Your task to perform on an android device: turn pop-ups off in chrome Image 0: 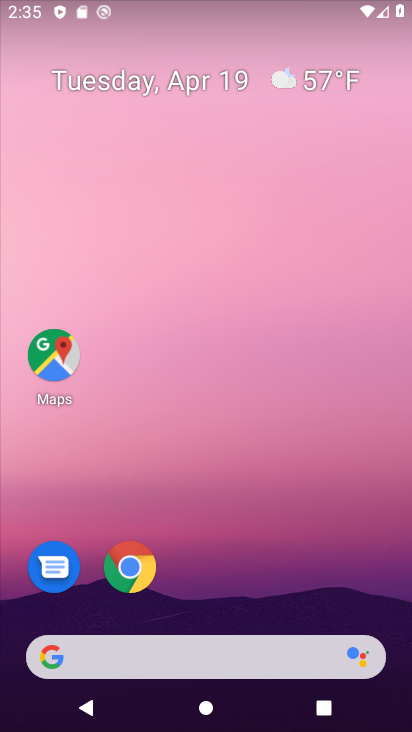
Step 0: drag from (396, 597) to (393, 58)
Your task to perform on an android device: turn pop-ups off in chrome Image 1: 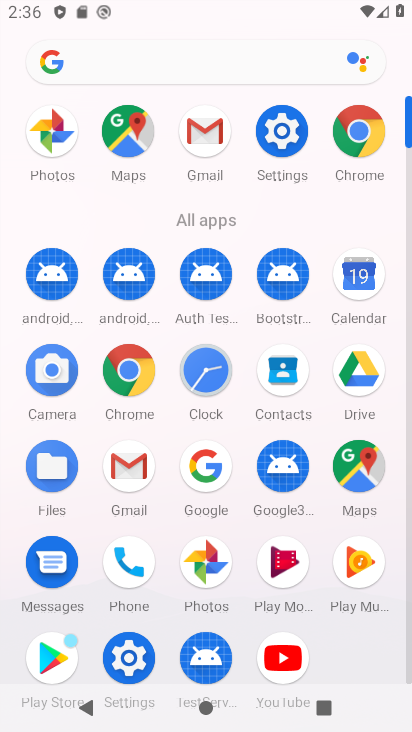
Step 1: click (135, 379)
Your task to perform on an android device: turn pop-ups off in chrome Image 2: 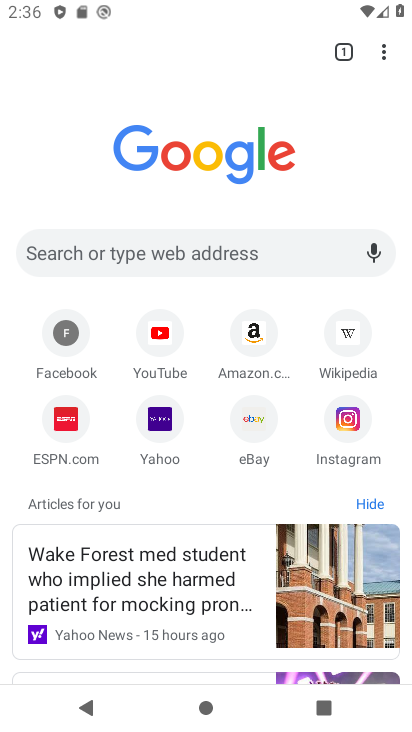
Step 2: click (383, 54)
Your task to perform on an android device: turn pop-ups off in chrome Image 3: 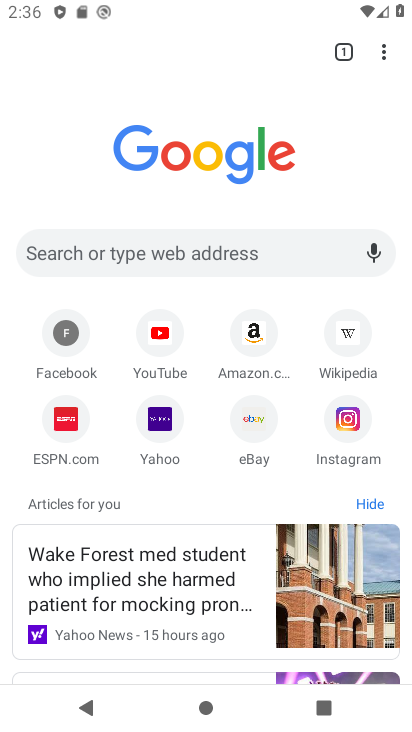
Step 3: click (385, 48)
Your task to perform on an android device: turn pop-ups off in chrome Image 4: 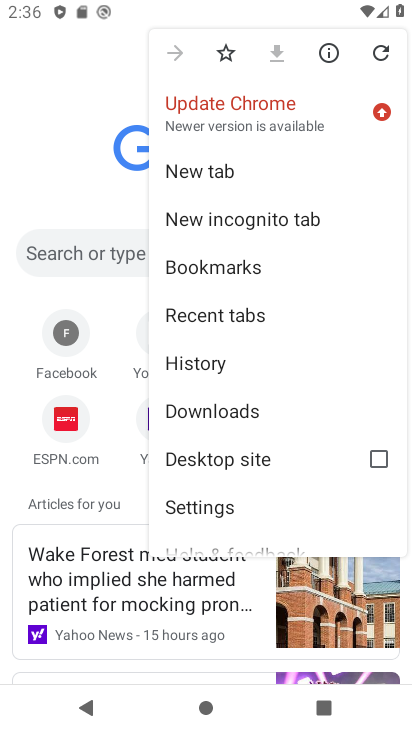
Step 4: click (224, 504)
Your task to perform on an android device: turn pop-ups off in chrome Image 5: 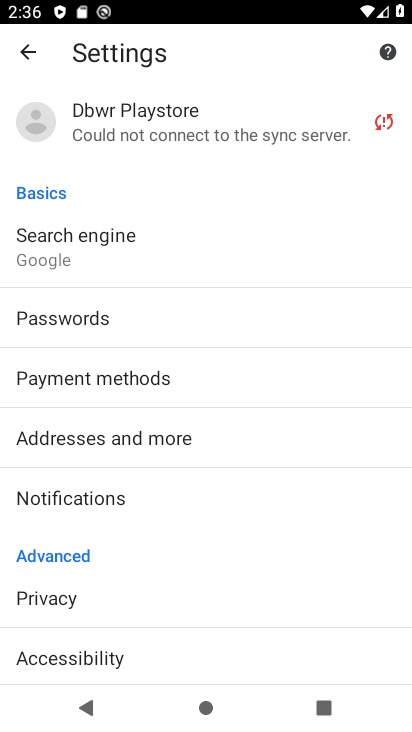
Step 5: drag from (302, 578) to (315, 305)
Your task to perform on an android device: turn pop-ups off in chrome Image 6: 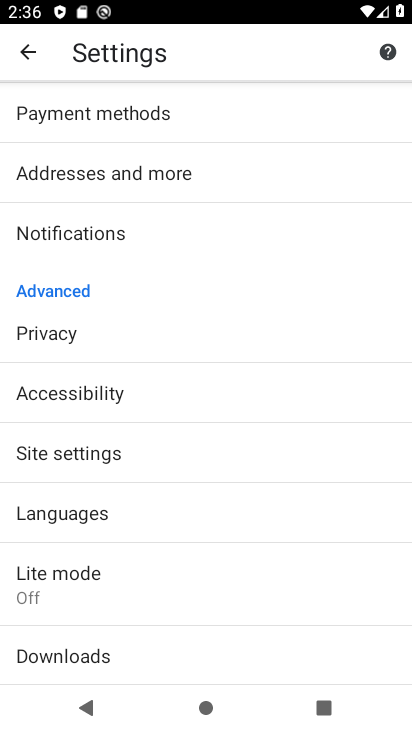
Step 6: drag from (277, 555) to (295, 302)
Your task to perform on an android device: turn pop-ups off in chrome Image 7: 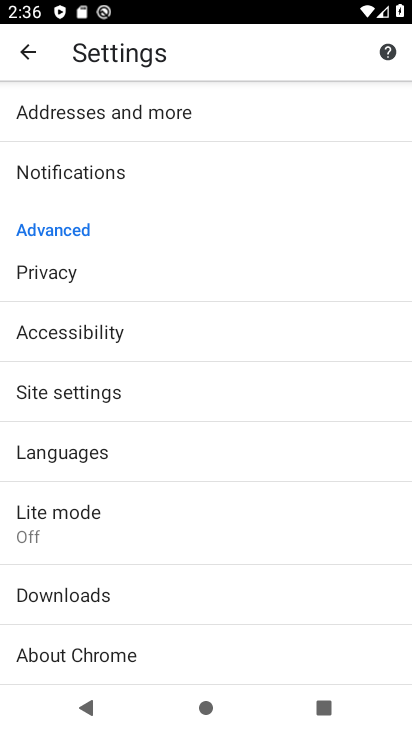
Step 7: click (194, 397)
Your task to perform on an android device: turn pop-ups off in chrome Image 8: 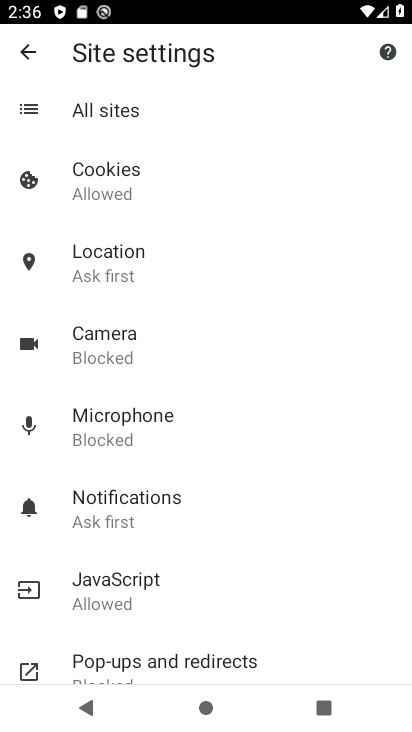
Step 8: drag from (323, 559) to (324, 314)
Your task to perform on an android device: turn pop-ups off in chrome Image 9: 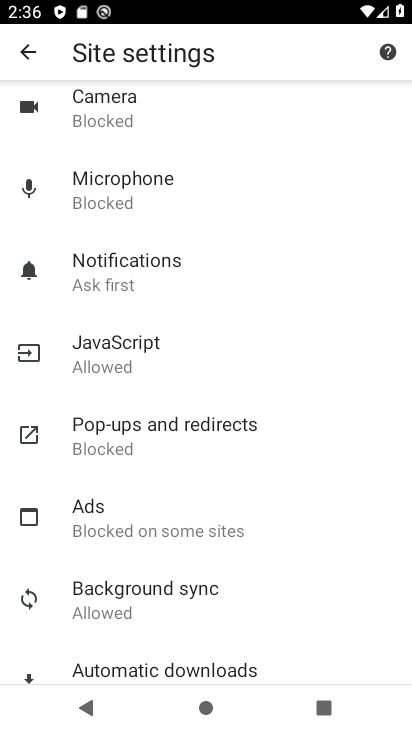
Step 9: drag from (313, 595) to (310, 378)
Your task to perform on an android device: turn pop-ups off in chrome Image 10: 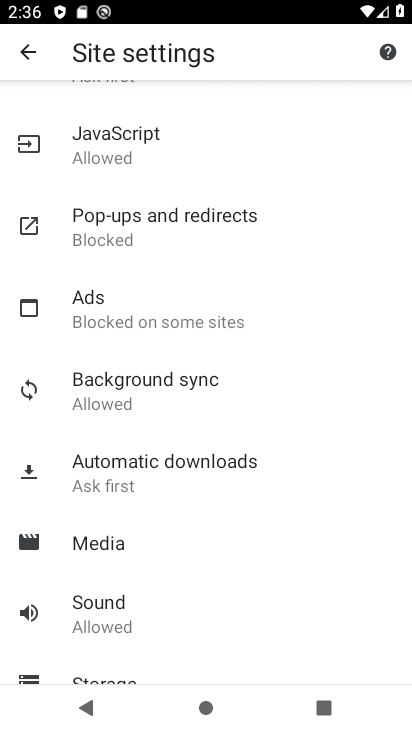
Step 10: click (133, 216)
Your task to perform on an android device: turn pop-ups off in chrome Image 11: 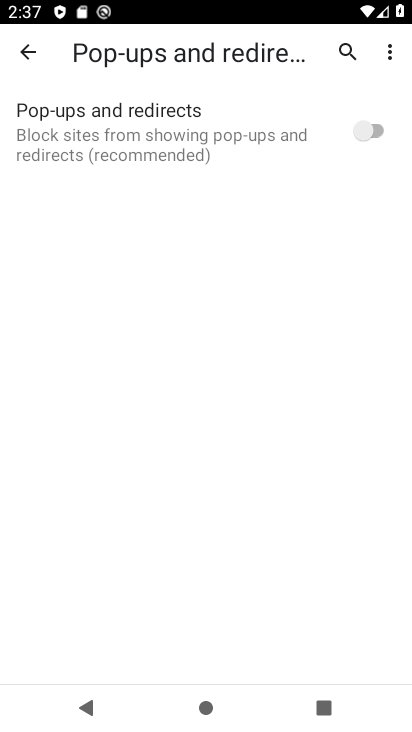
Step 11: task complete